Your task to perform on an android device: Open location settings Image 0: 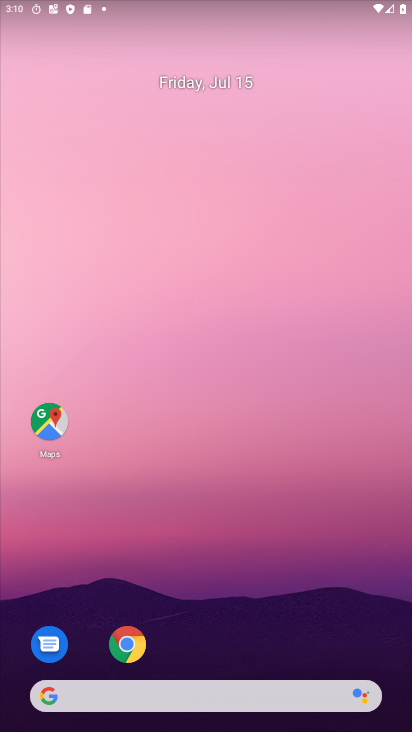
Step 0: drag from (240, 621) to (310, 38)
Your task to perform on an android device: Open location settings Image 1: 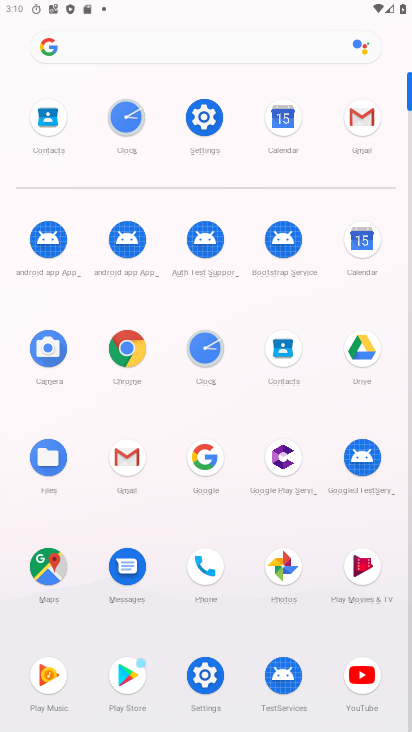
Step 1: click (218, 107)
Your task to perform on an android device: Open location settings Image 2: 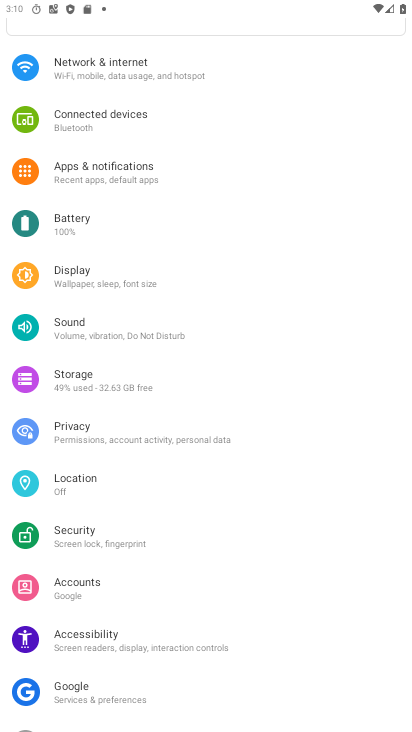
Step 2: click (75, 489)
Your task to perform on an android device: Open location settings Image 3: 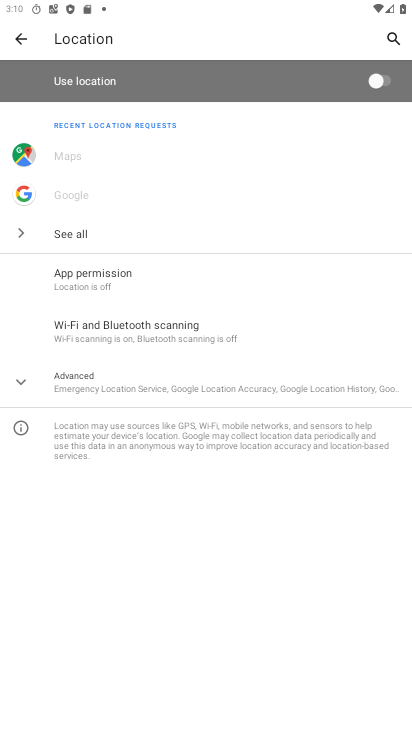
Step 3: task complete